Your task to perform on an android device: Go to Yahoo.com Image 0: 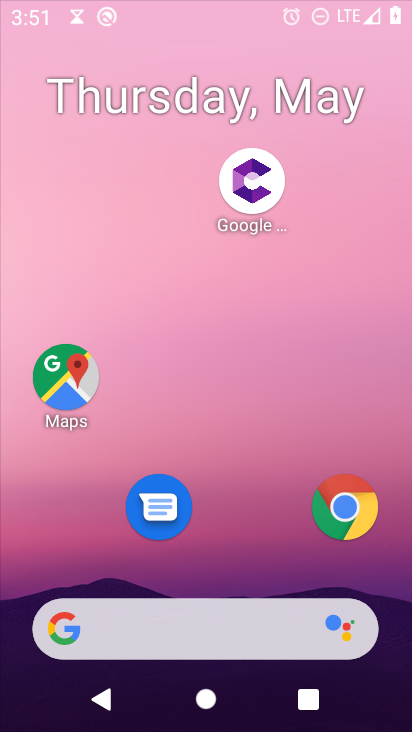
Step 0: press home button
Your task to perform on an android device: Go to Yahoo.com Image 1: 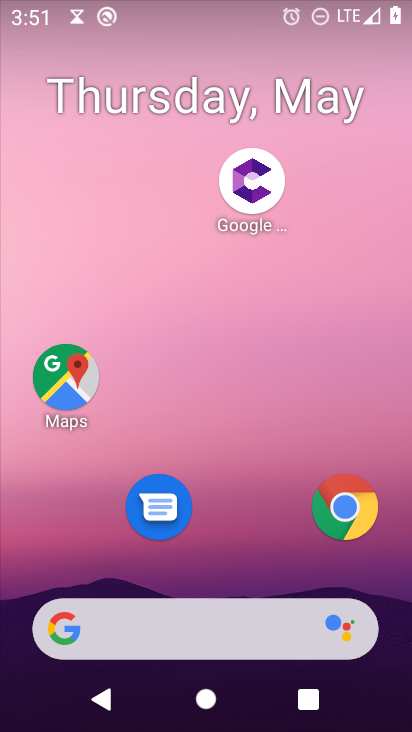
Step 1: click (60, 629)
Your task to perform on an android device: Go to Yahoo.com Image 2: 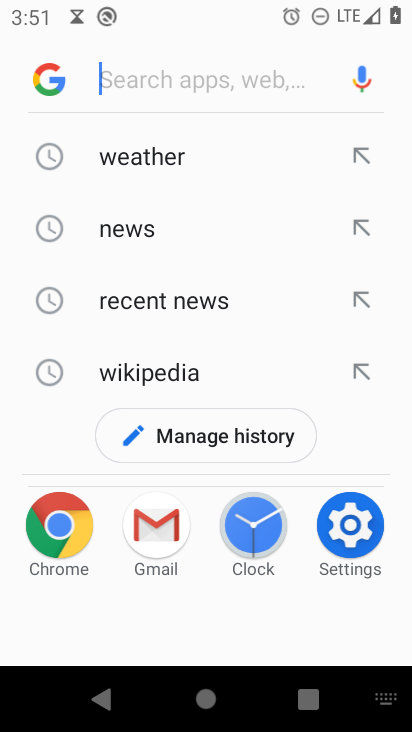
Step 2: type " Yahoo.com"
Your task to perform on an android device: Go to Yahoo.com Image 3: 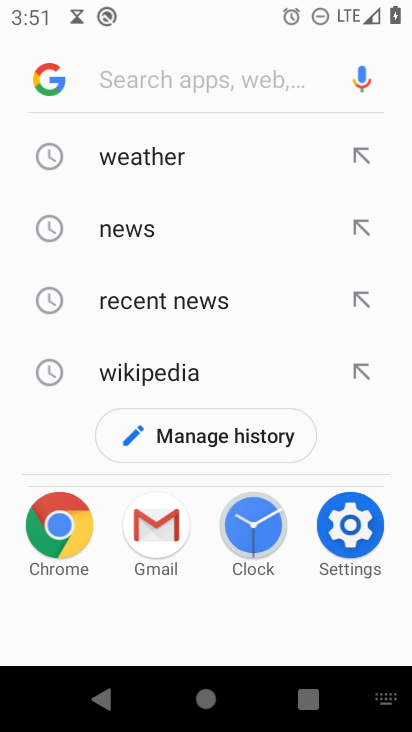
Step 3: click (204, 73)
Your task to perform on an android device: Go to Yahoo.com Image 4: 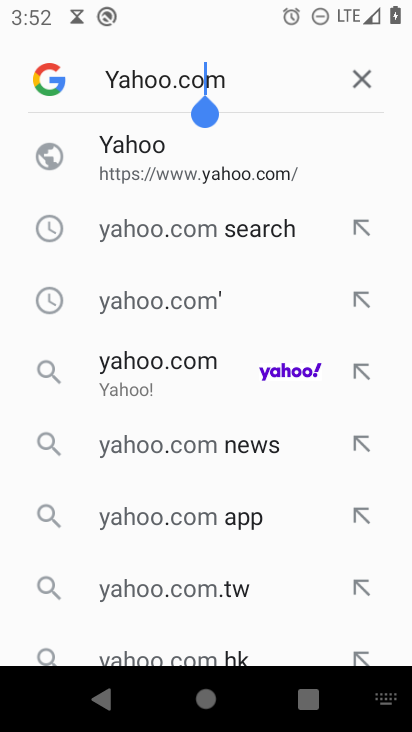
Step 4: click (128, 150)
Your task to perform on an android device: Go to Yahoo.com Image 5: 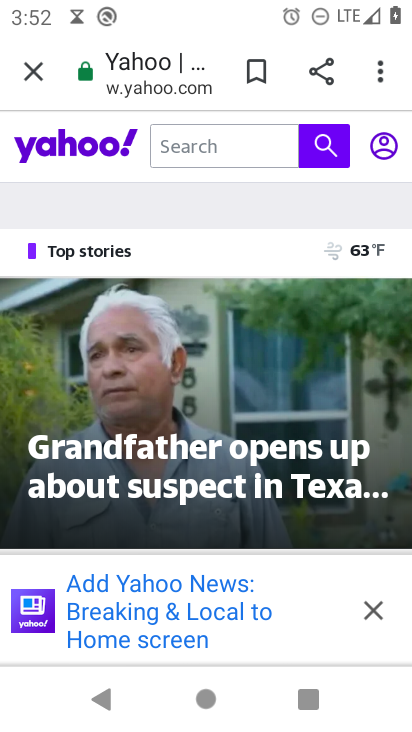
Step 5: task complete